Your task to perform on an android device: Open notification settings Image 0: 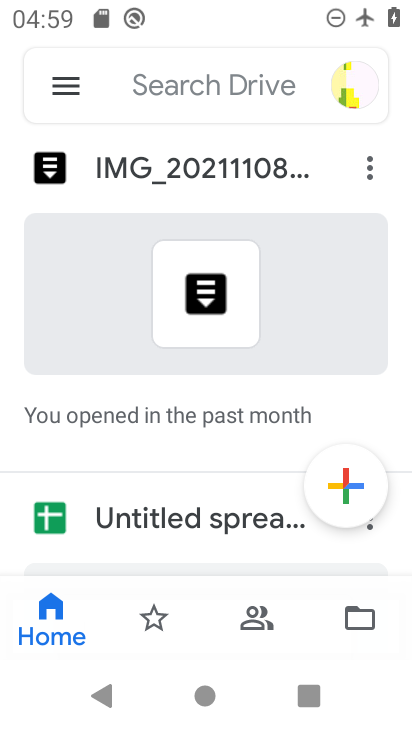
Step 0: press home button
Your task to perform on an android device: Open notification settings Image 1: 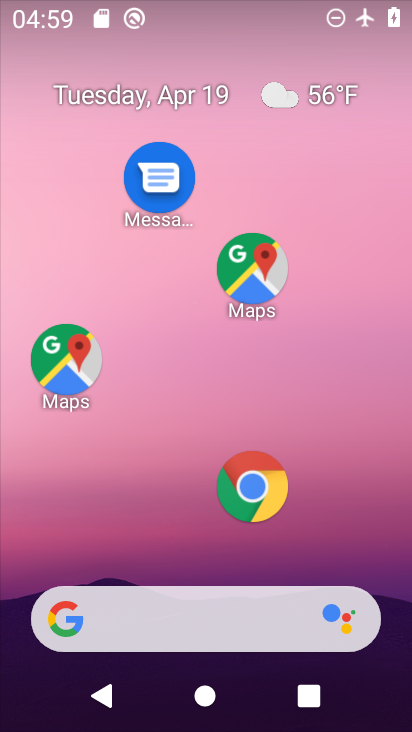
Step 1: drag from (240, 569) to (289, 144)
Your task to perform on an android device: Open notification settings Image 2: 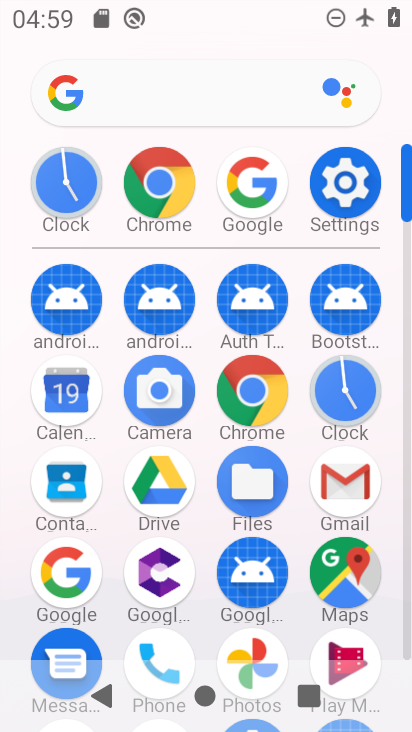
Step 2: click (344, 201)
Your task to perform on an android device: Open notification settings Image 3: 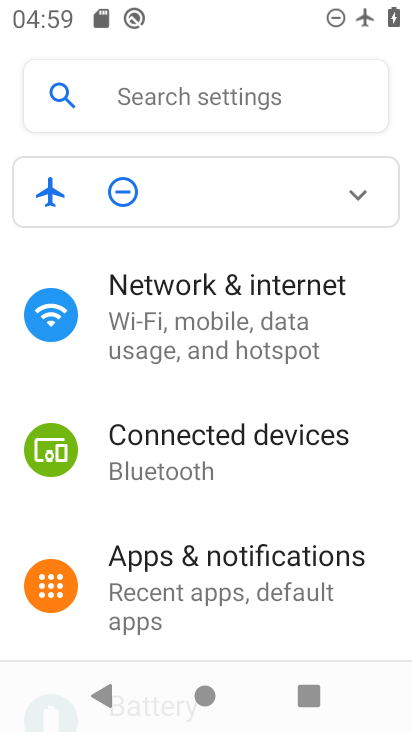
Step 3: drag from (255, 465) to (285, 348)
Your task to perform on an android device: Open notification settings Image 4: 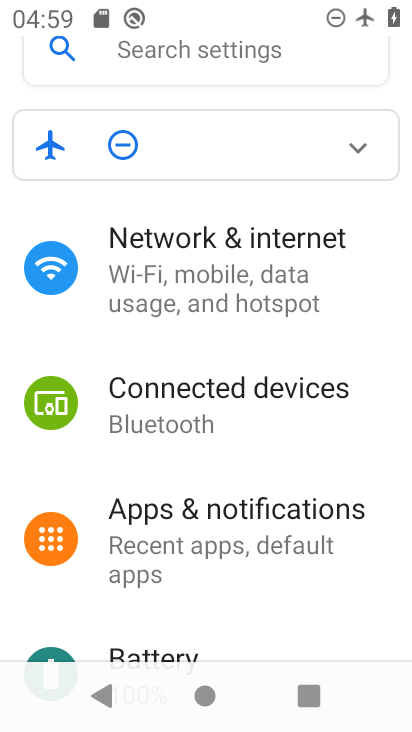
Step 4: click (276, 510)
Your task to perform on an android device: Open notification settings Image 5: 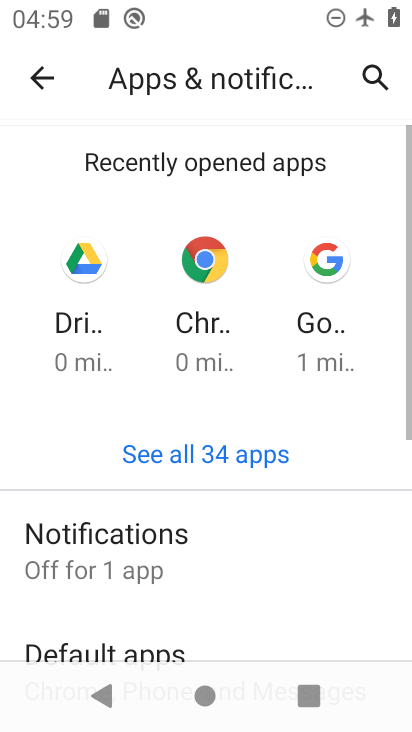
Step 5: click (229, 571)
Your task to perform on an android device: Open notification settings Image 6: 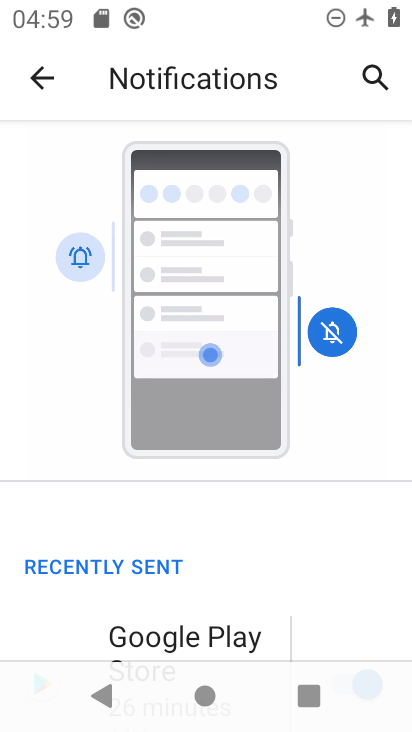
Step 6: task complete